Your task to perform on an android device: Go to Reddit.com Image 0: 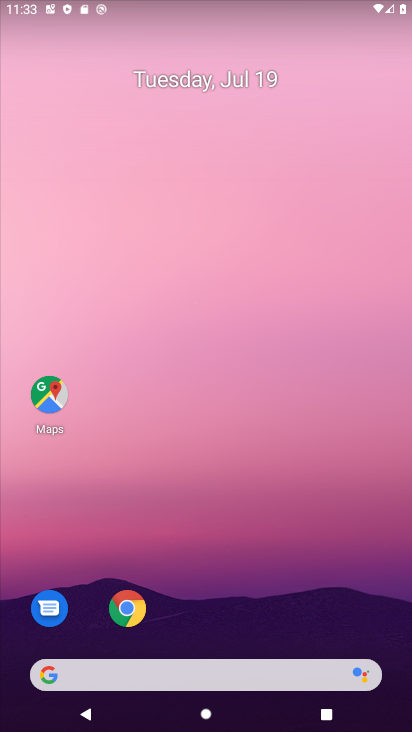
Step 0: drag from (182, 626) to (238, 133)
Your task to perform on an android device: Go to Reddit.com Image 1: 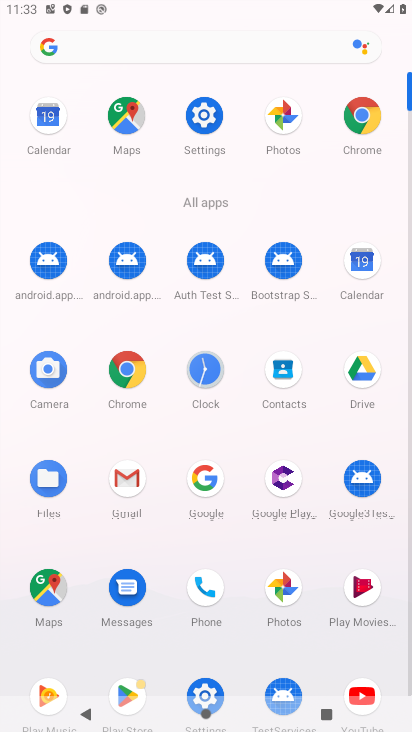
Step 1: click (206, 480)
Your task to perform on an android device: Go to Reddit.com Image 2: 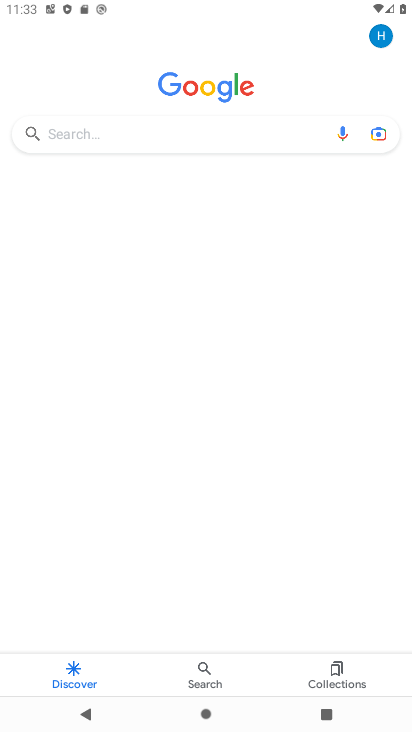
Step 2: click (153, 132)
Your task to perform on an android device: Go to Reddit.com Image 3: 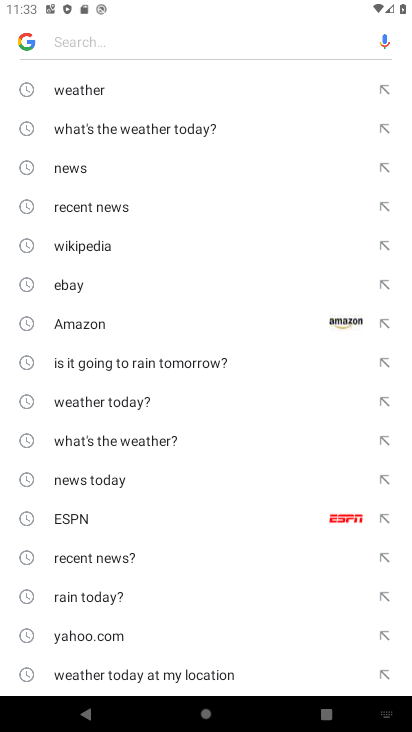
Step 3: type "reddit.com"
Your task to perform on an android device: Go to Reddit.com Image 4: 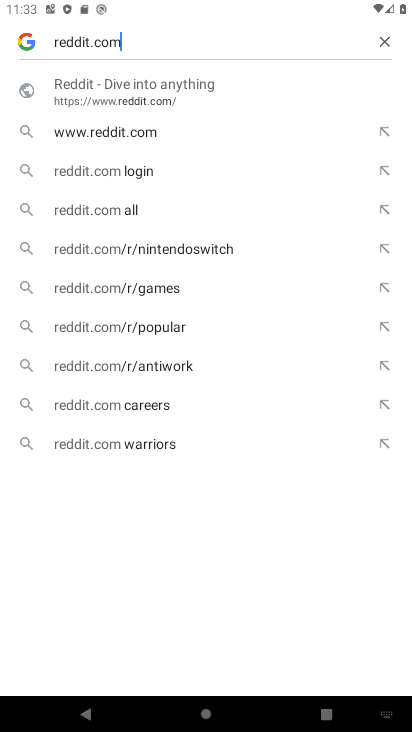
Step 4: click (131, 133)
Your task to perform on an android device: Go to Reddit.com Image 5: 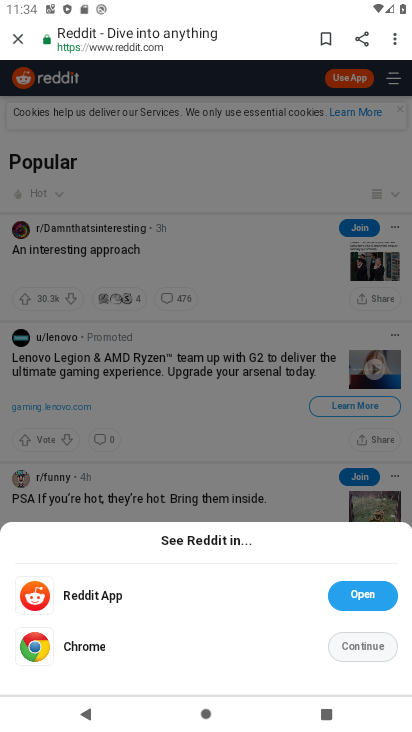
Step 5: task complete